Your task to perform on an android device: Open internet settings Image 0: 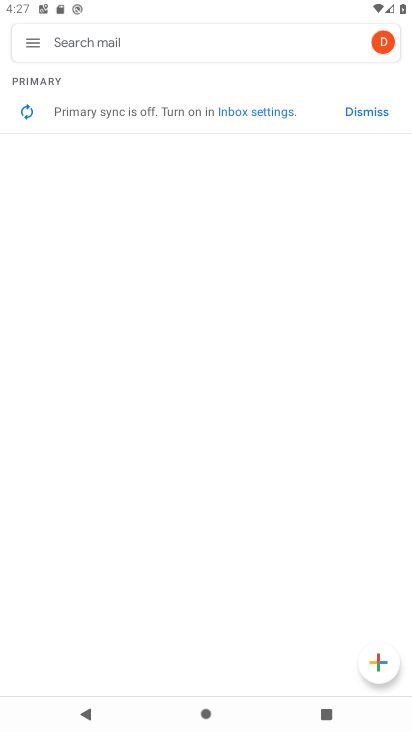
Step 0: press home button
Your task to perform on an android device: Open internet settings Image 1: 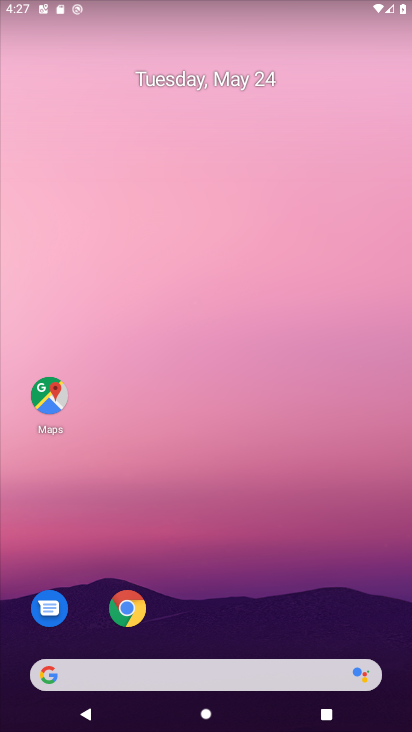
Step 1: drag from (209, 659) to (181, 193)
Your task to perform on an android device: Open internet settings Image 2: 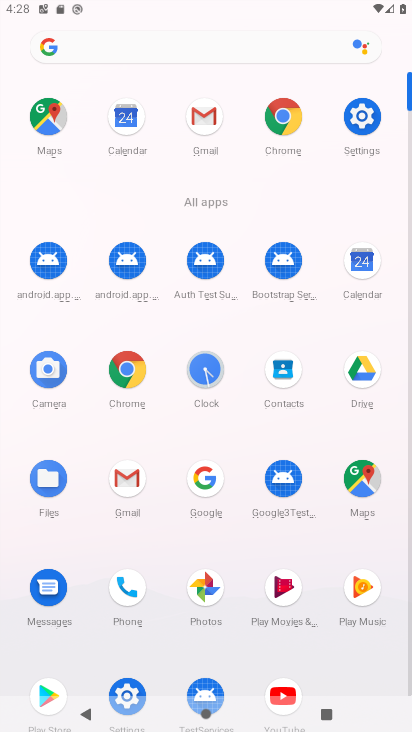
Step 2: click (354, 118)
Your task to perform on an android device: Open internet settings Image 3: 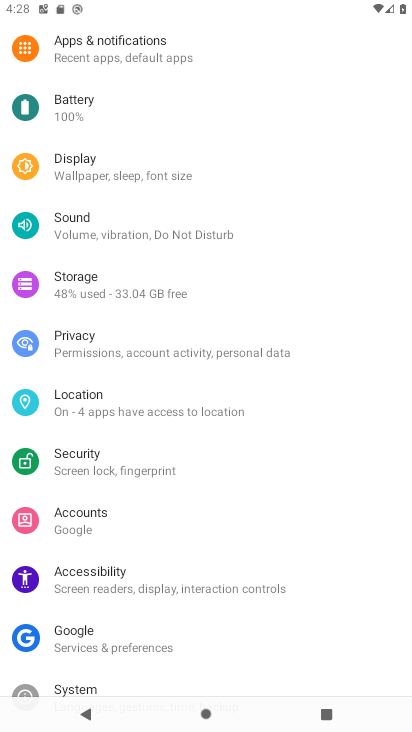
Step 3: drag from (110, 46) to (122, 484)
Your task to perform on an android device: Open internet settings Image 4: 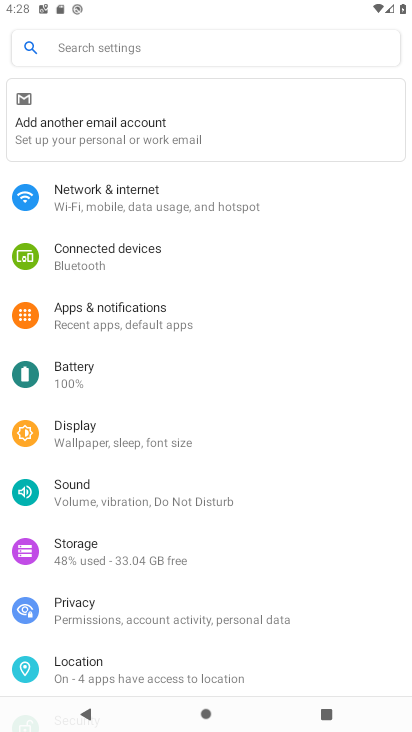
Step 4: click (88, 188)
Your task to perform on an android device: Open internet settings Image 5: 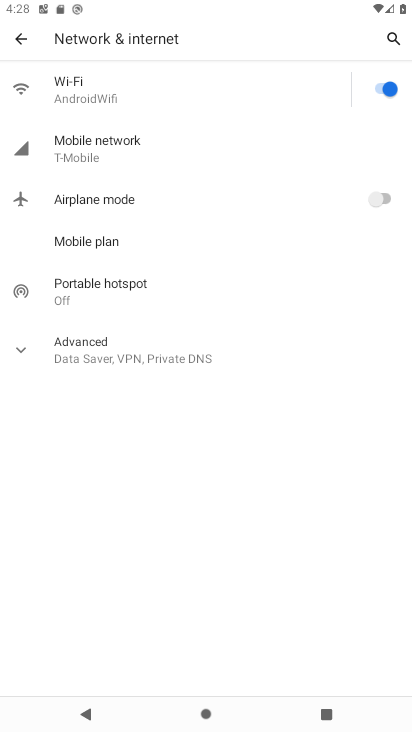
Step 5: click (97, 335)
Your task to perform on an android device: Open internet settings Image 6: 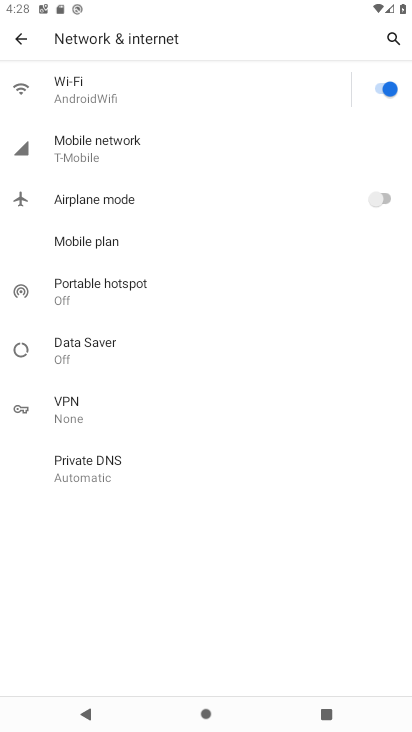
Step 6: task complete